Your task to perform on an android device: Show me popular games on the Play Store Image 0: 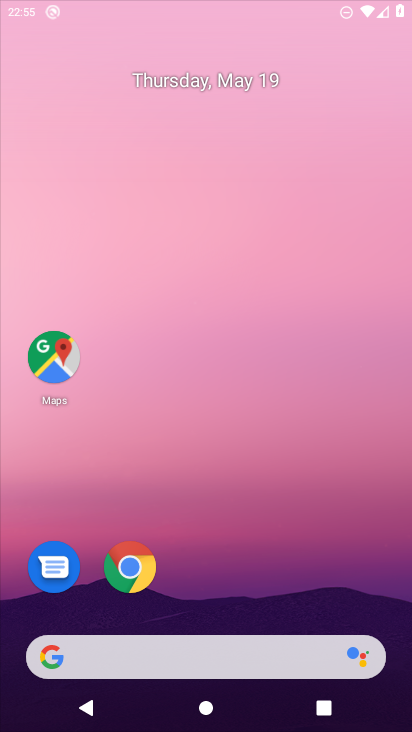
Step 0: drag from (250, 192) to (253, 64)
Your task to perform on an android device: Show me popular games on the Play Store Image 1: 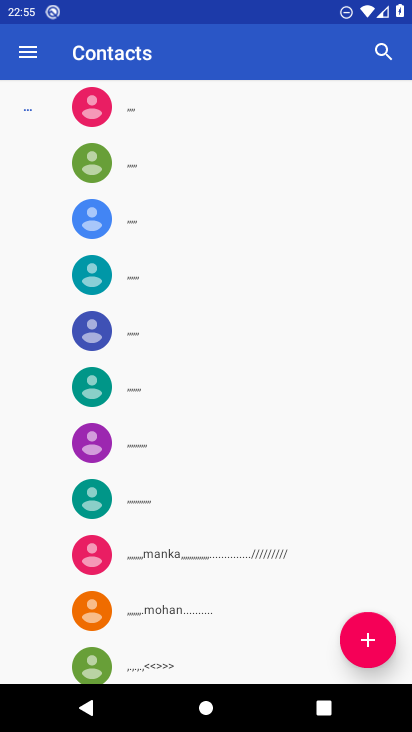
Step 1: press home button
Your task to perform on an android device: Show me popular games on the Play Store Image 2: 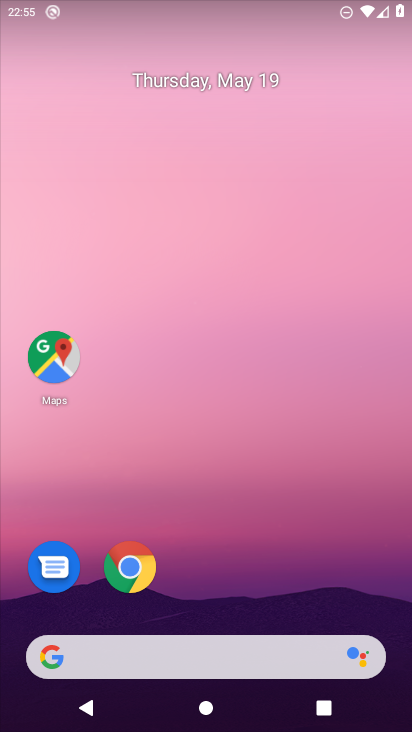
Step 2: drag from (192, 604) to (252, 67)
Your task to perform on an android device: Show me popular games on the Play Store Image 3: 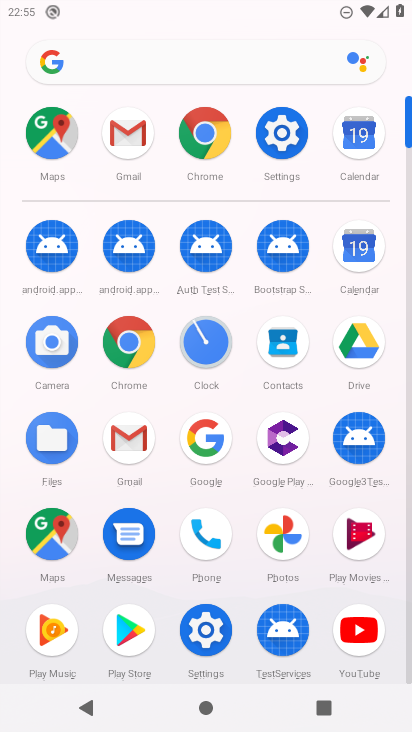
Step 3: click (124, 627)
Your task to perform on an android device: Show me popular games on the Play Store Image 4: 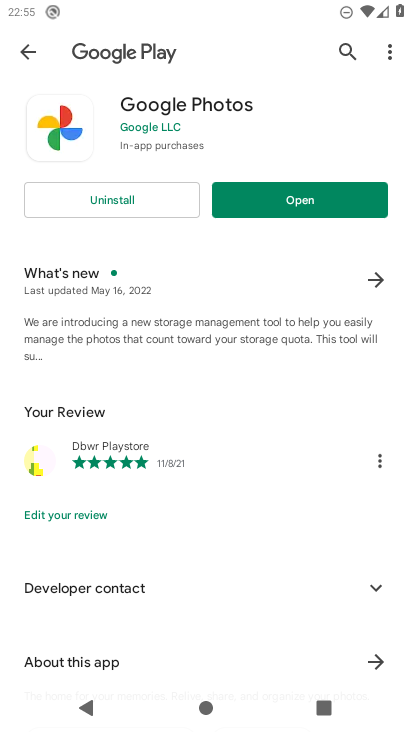
Step 4: click (34, 66)
Your task to perform on an android device: Show me popular games on the Play Store Image 5: 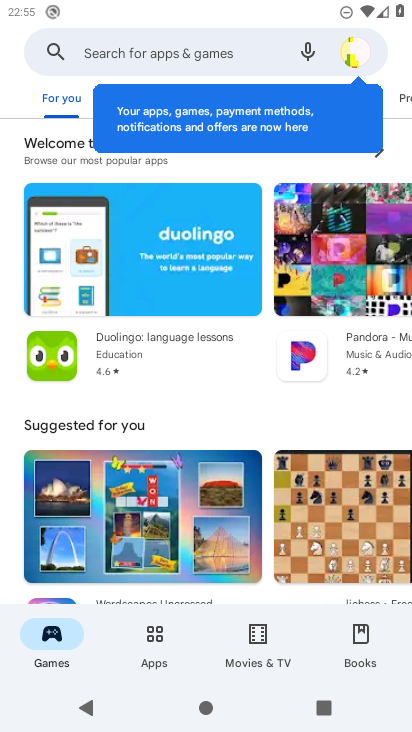
Step 5: drag from (229, 532) to (251, 174)
Your task to perform on an android device: Show me popular games on the Play Store Image 6: 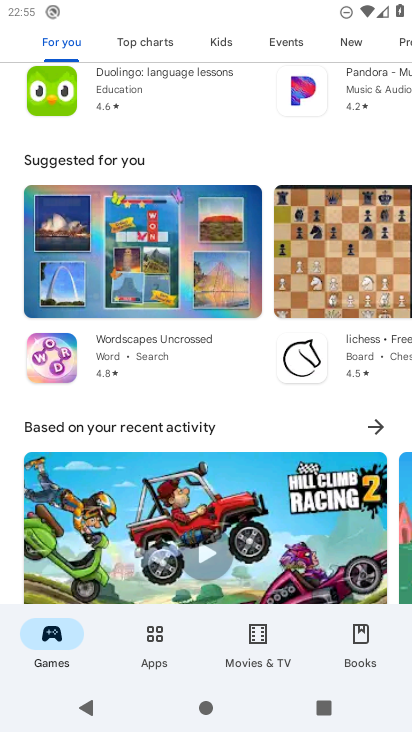
Step 6: drag from (229, 523) to (237, 183)
Your task to perform on an android device: Show me popular games on the Play Store Image 7: 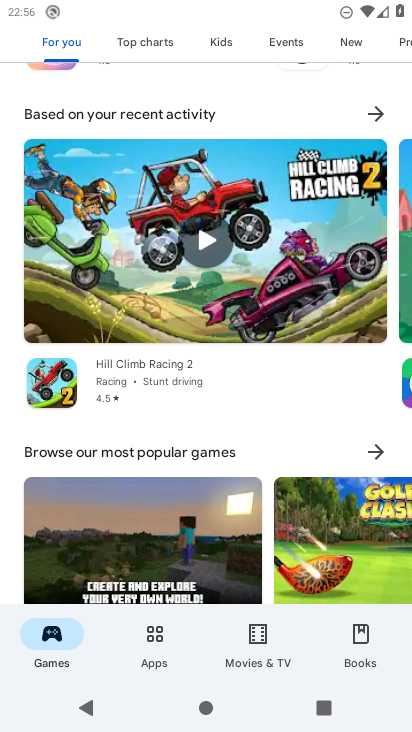
Step 7: click (372, 449)
Your task to perform on an android device: Show me popular games on the Play Store Image 8: 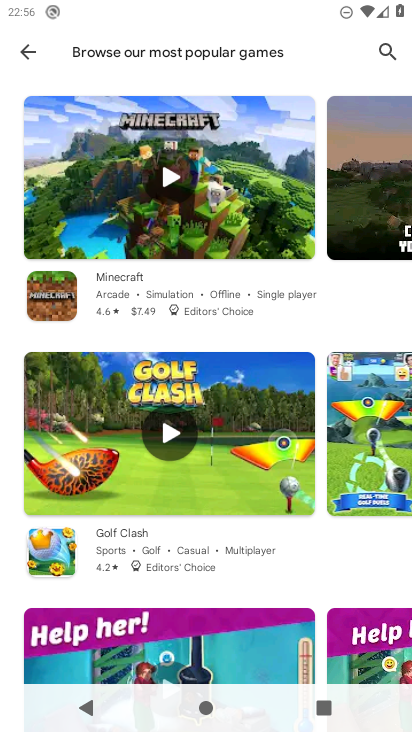
Step 8: task complete